Your task to perform on an android device: Open the phone app and click the voicemail tab. Image 0: 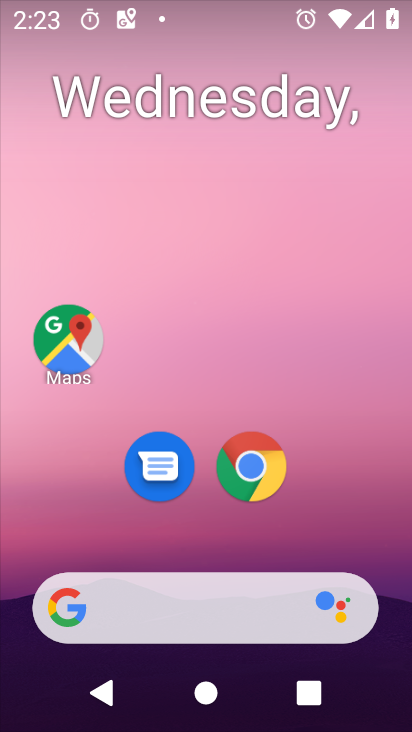
Step 0: drag from (289, 455) to (280, 213)
Your task to perform on an android device: Open the phone app and click the voicemail tab. Image 1: 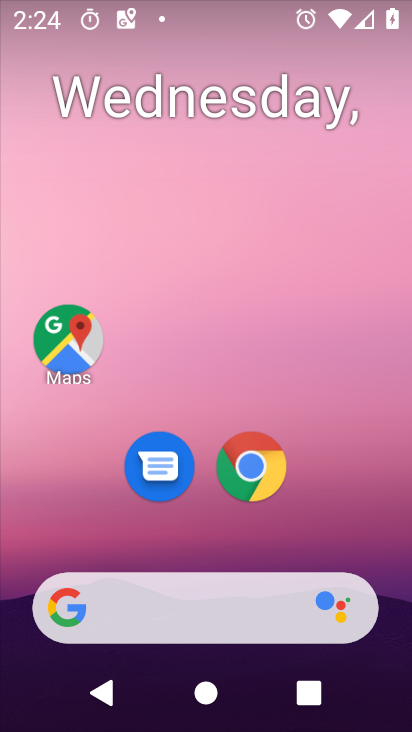
Step 1: drag from (321, 391) to (294, 115)
Your task to perform on an android device: Open the phone app and click the voicemail tab. Image 2: 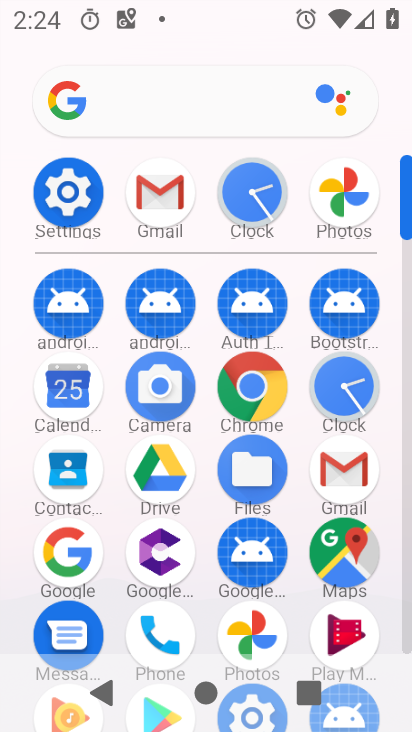
Step 2: click (166, 621)
Your task to perform on an android device: Open the phone app and click the voicemail tab. Image 3: 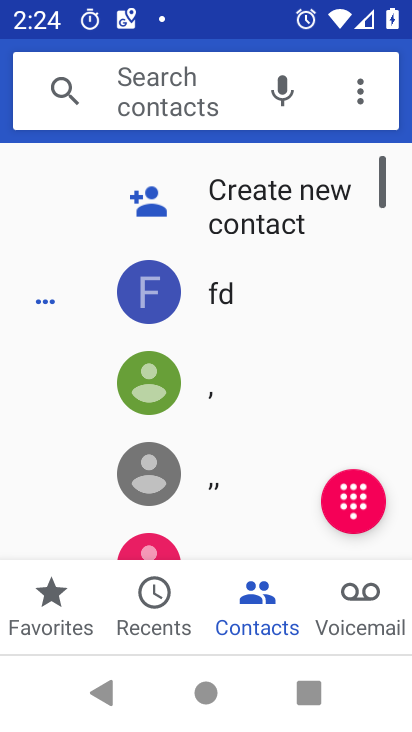
Step 3: click (336, 606)
Your task to perform on an android device: Open the phone app and click the voicemail tab. Image 4: 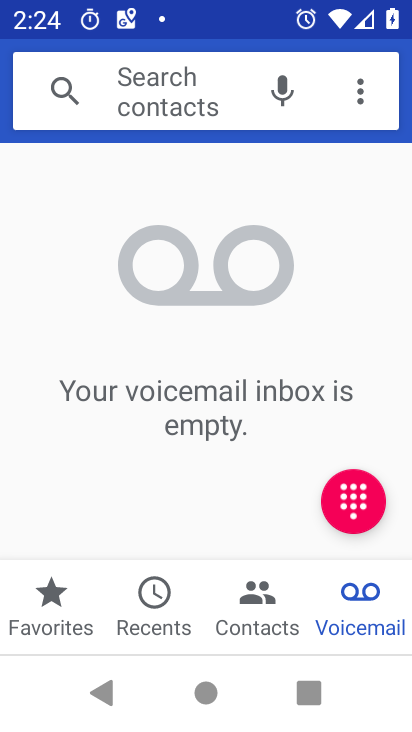
Step 4: task complete